Your task to perform on an android device: See recent photos Image 0: 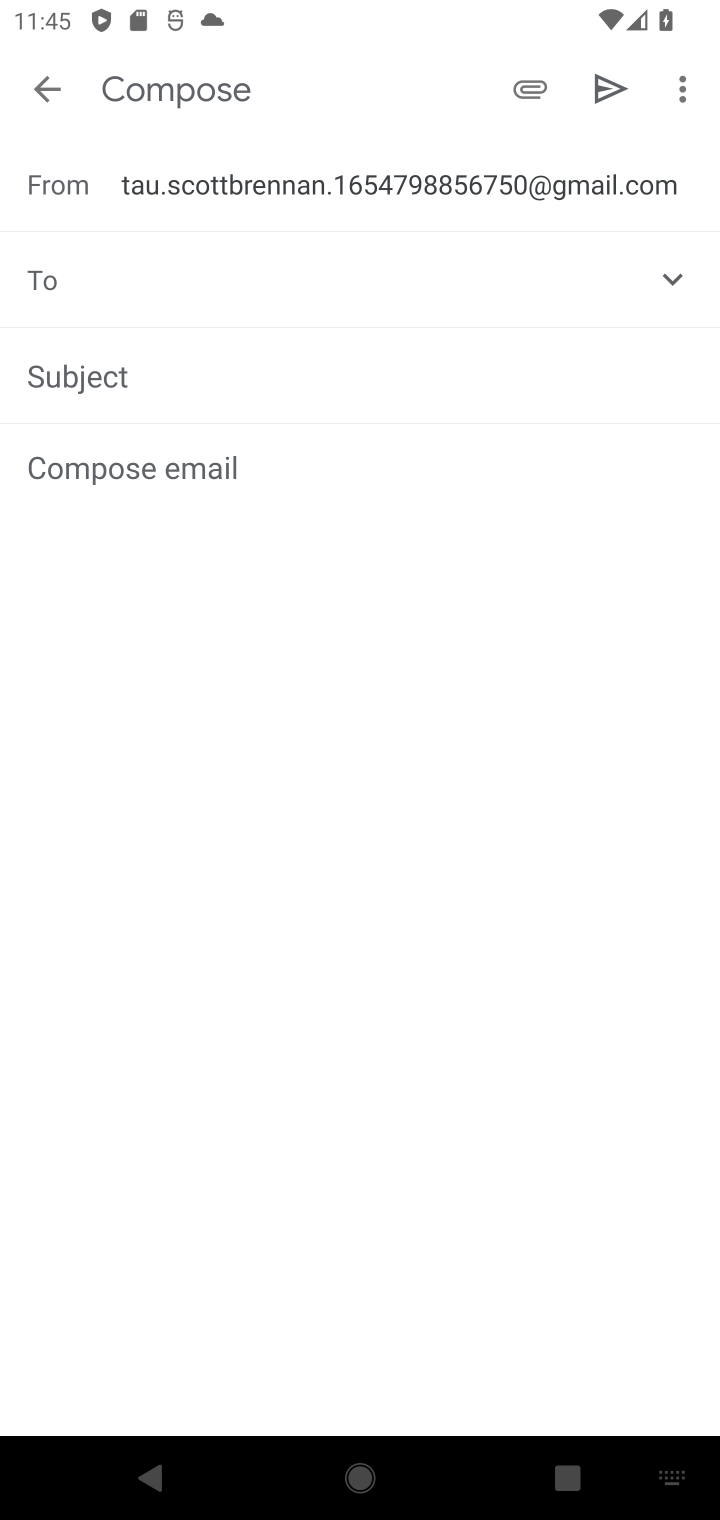
Step 0: press home button
Your task to perform on an android device: See recent photos Image 1: 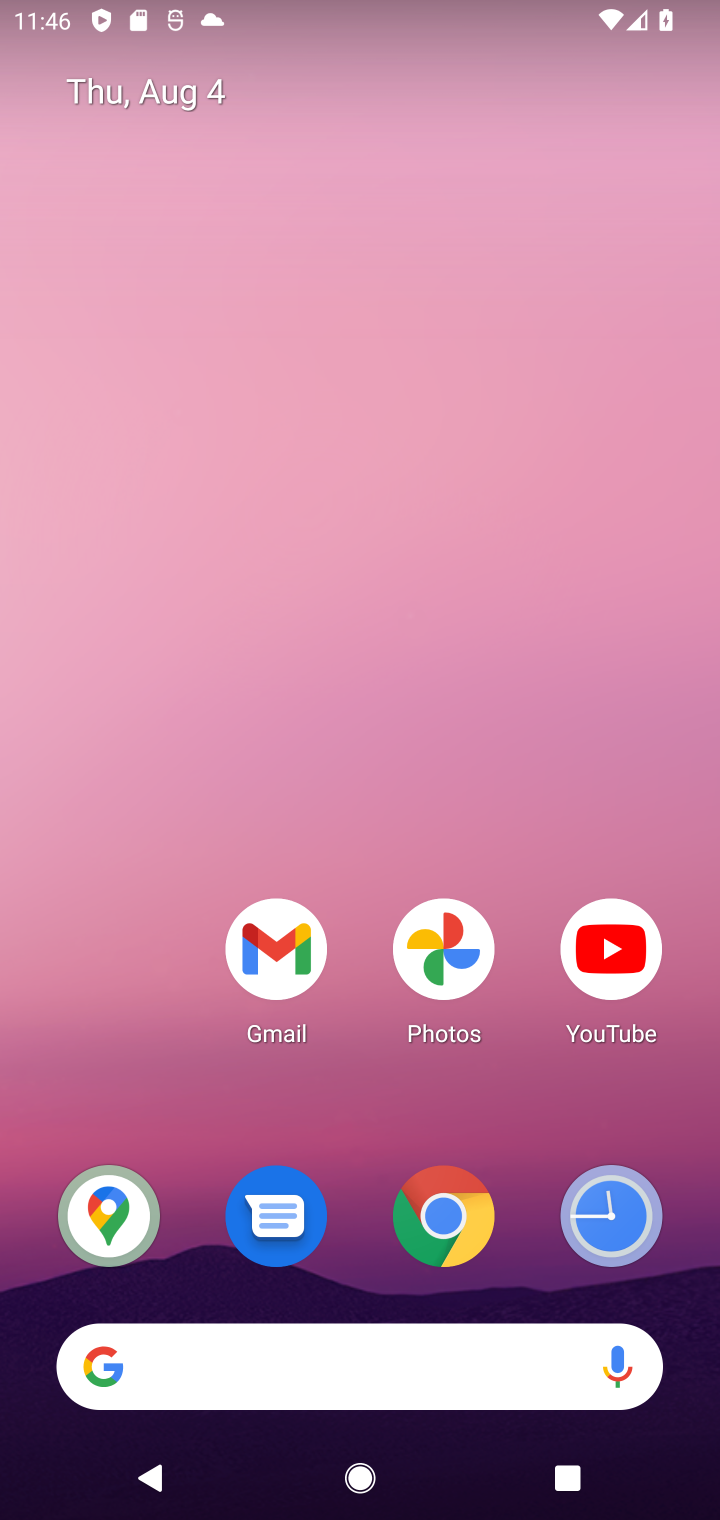
Step 1: drag from (291, 1384) to (353, 100)
Your task to perform on an android device: See recent photos Image 2: 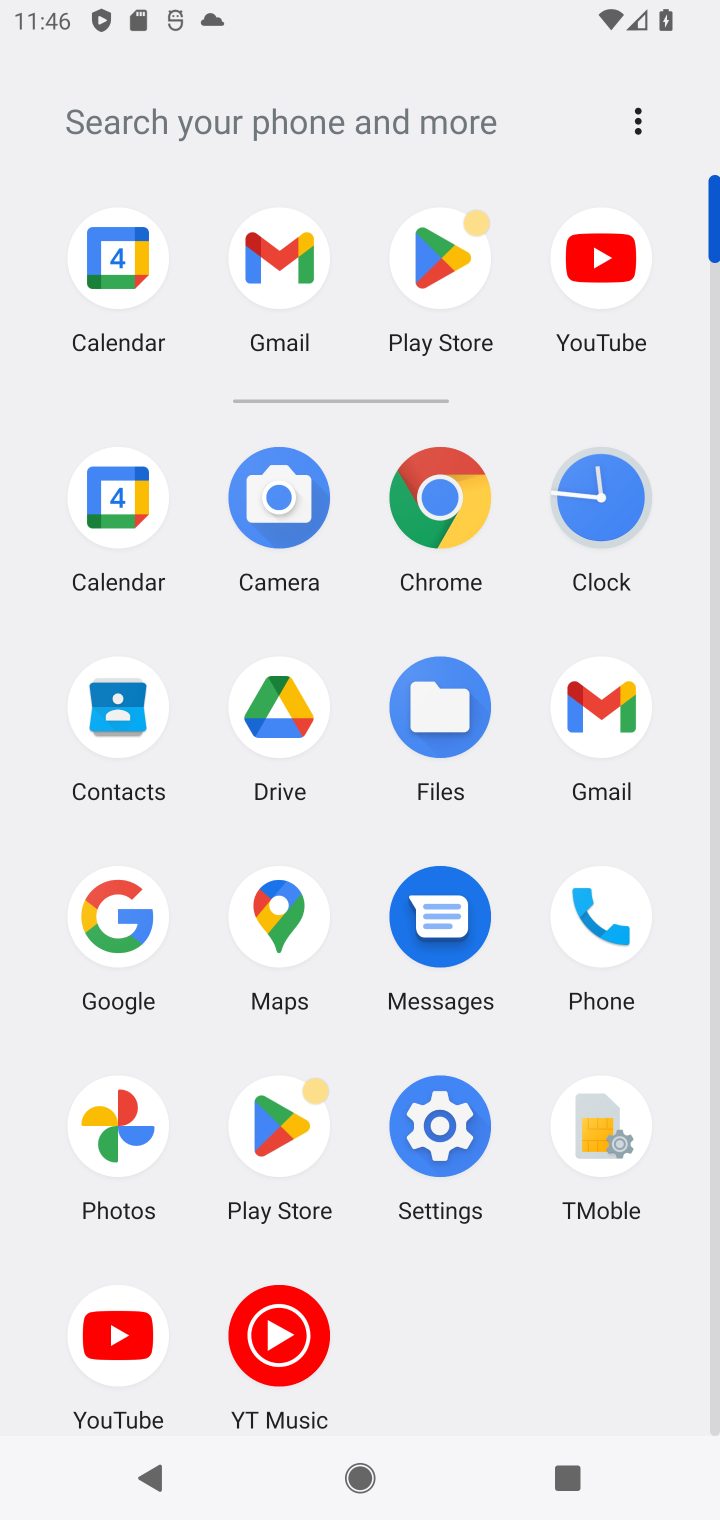
Step 2: click (118, 1125)
Your task to perform on an android device: See recent photos Image 3: 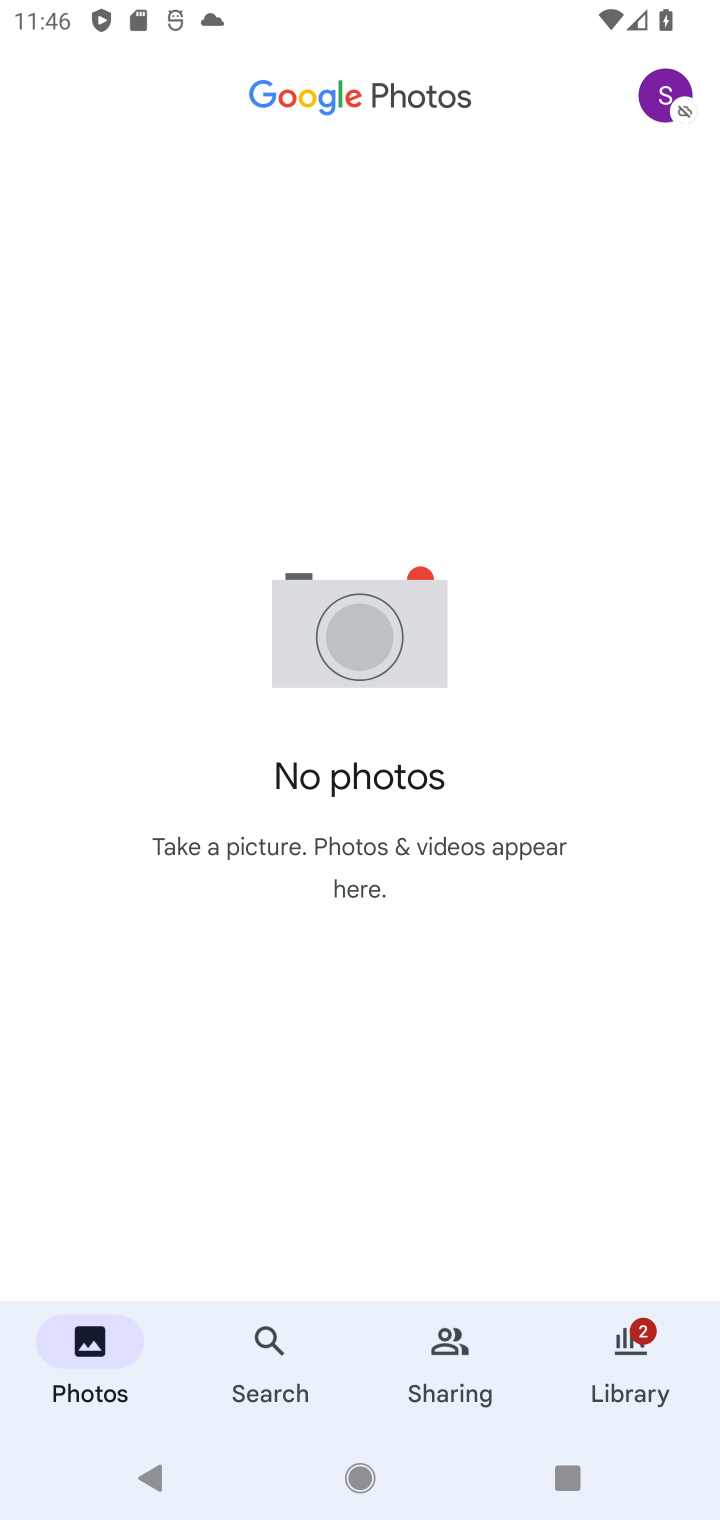
Step 3: task complete